Your task to perform on an android device: When is my next appointment? Image 0: 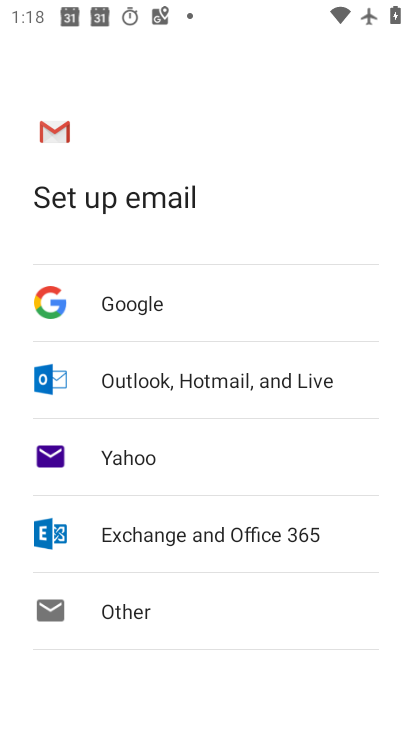
Step 0: press home button
Your task to perform on an android device: When is my next appointment? Image 1: 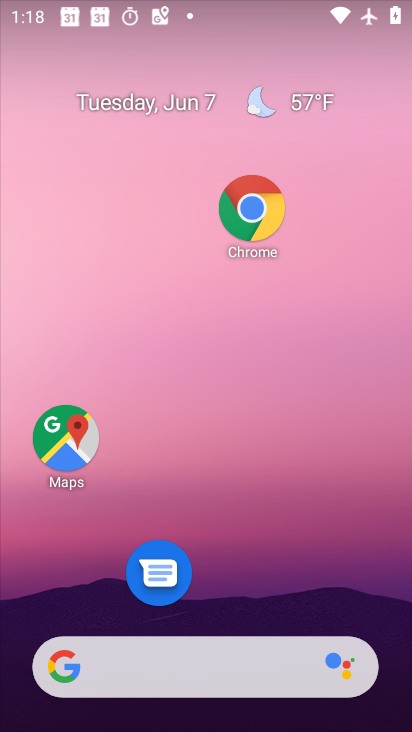
Step 1: drag from (211, 602) to (183, 237)
Your task to perform on an android device: When is my next appointment? Image 2: 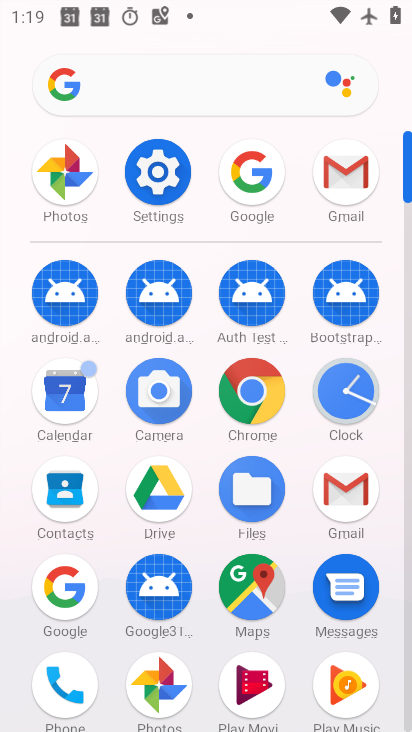
Step 2: click (75, 406)
Your task to perform on an android device: When is my next appointment? Image 3: 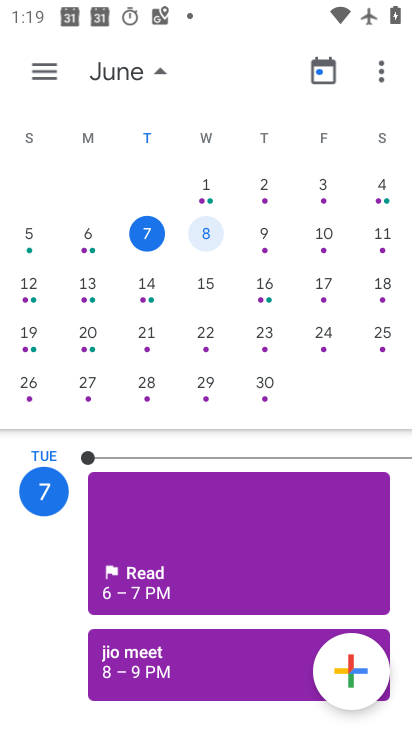
Step 3: task complete